Your task to perform on an android device: Do I have any events today? Image 0: 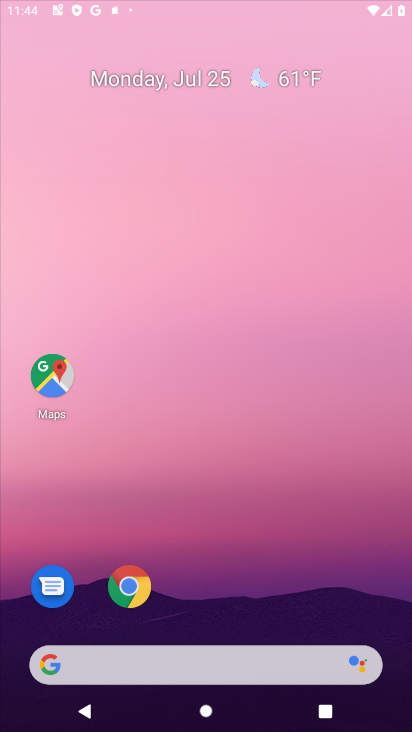
Step 0: press home button
Your task to perform on an android device: Do I have any events today? Image 1: 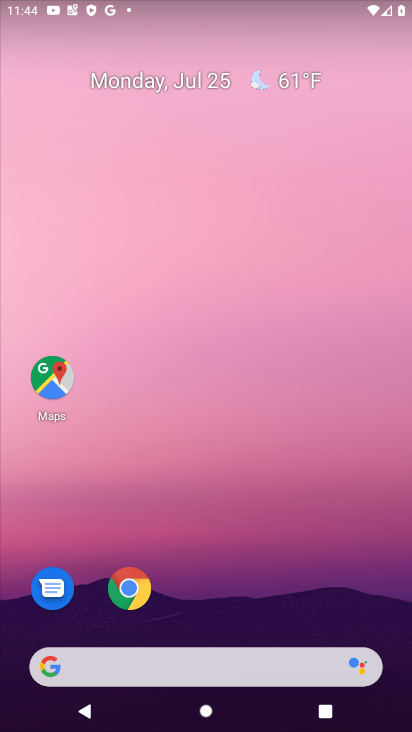
Step 1: drag from (218, 620) to (258, 21)
Your task to perform on an android device: Do I have any events today? Image 2: 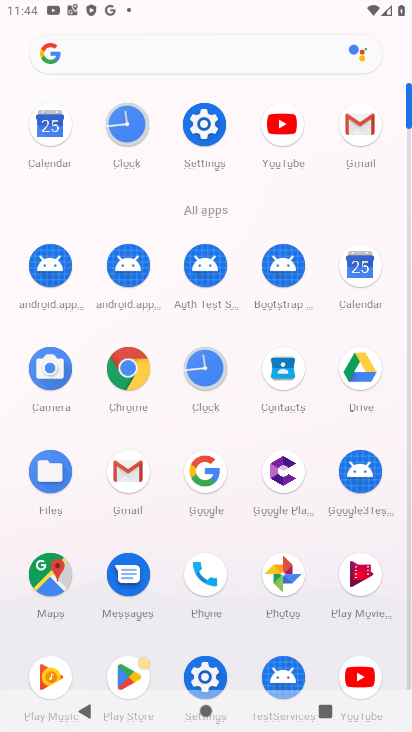
Step 2: click (361, 258)
Your task to perform on an android device: Do I have any events today? Image 3: 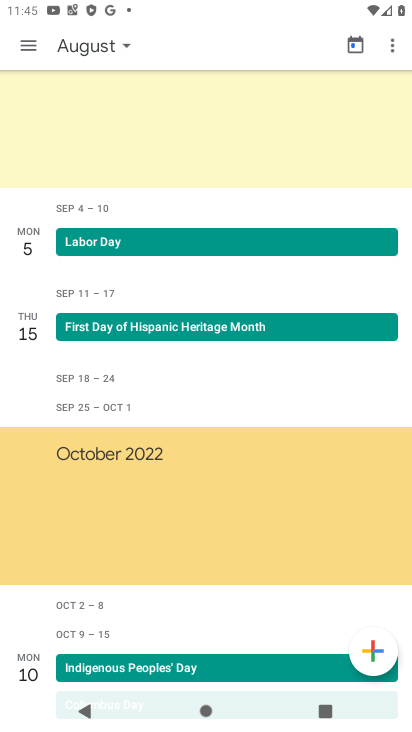
Step 3: click (128, 45)
Your task to perform on an android device: Do I have any events today? Image 4: 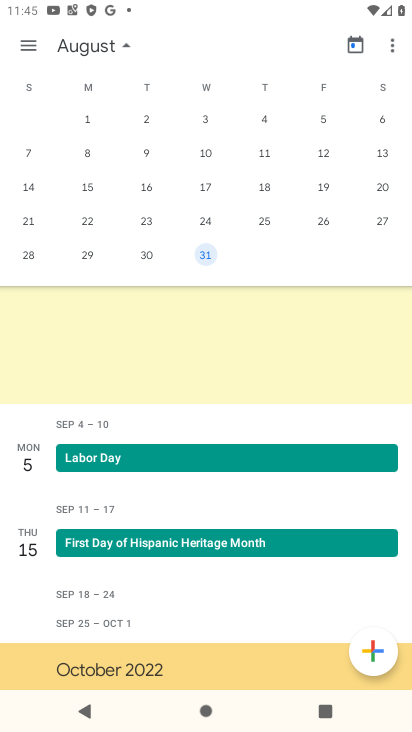
Step 4: drag from (33, 184) to (380, 188)
Your task to perform on an android device: Do I have any events today? Image 5: 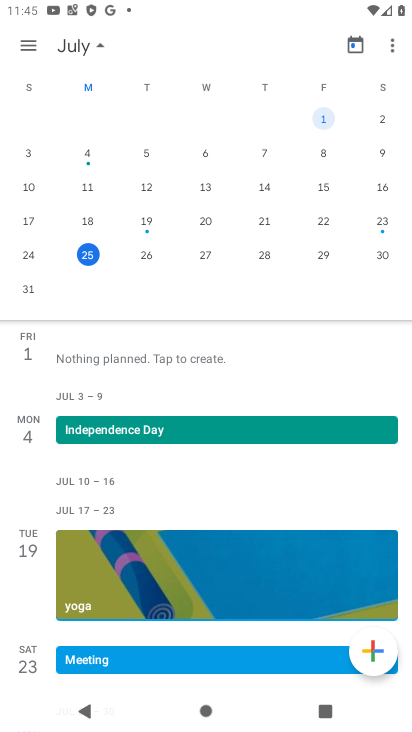
Step 5: click (86, 253)
Your task to perform on an android device: Do I have any events today? Image 6: 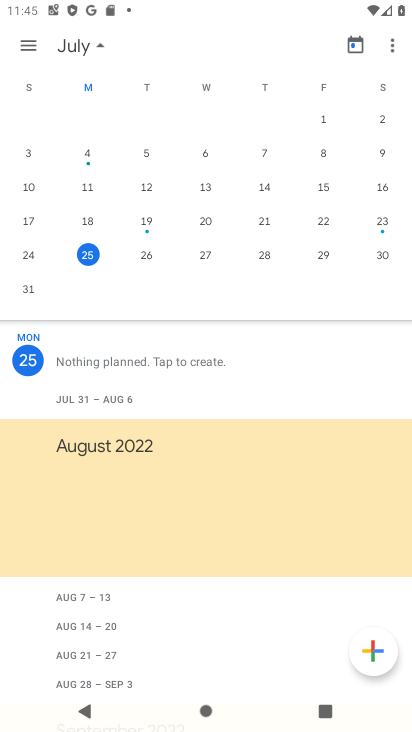
Step 6: click (93, 250)
Your task to perform on an android device: Do I have any events today? Image 7: 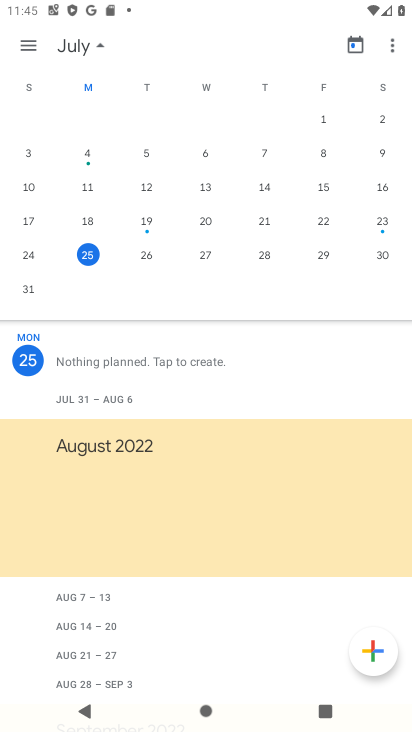
Step 7: click (94, 49)
Your task to perform on an android device: Do I have any events today? Image 8: 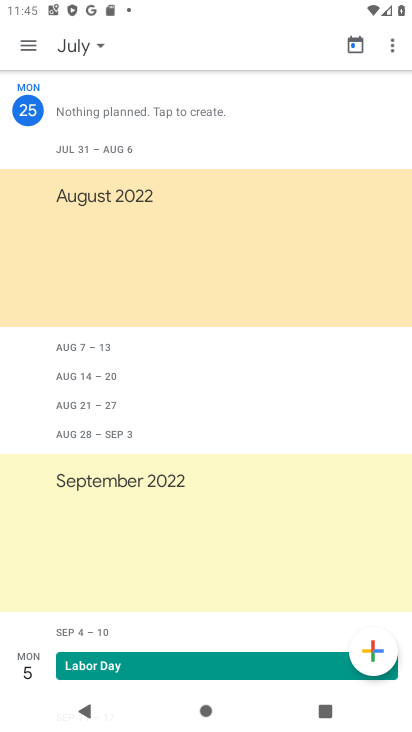
Step 8: click (37, 111)
Your task to perform on an android device: Do I have any events today? Image 9: 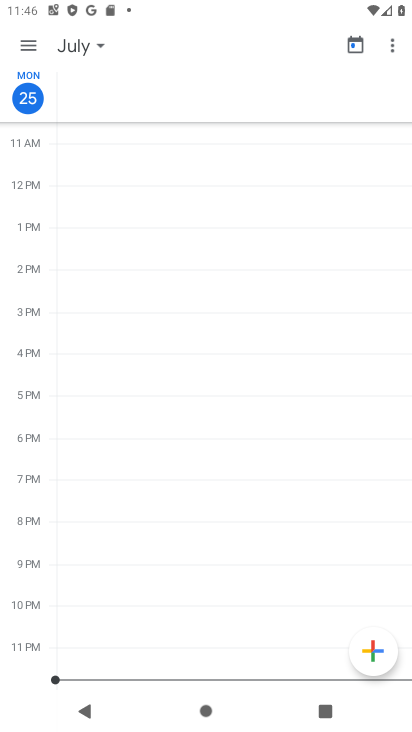
Step 9: task complete